Your task to perform on an android device: check google app version Image 0: 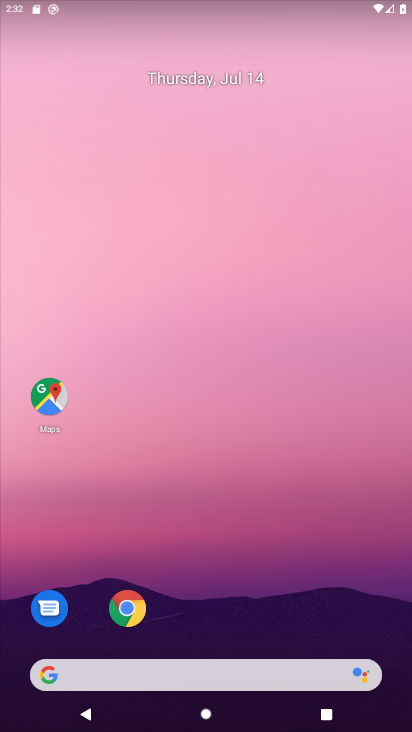
Step 0: press home button
Your task to perform on an android device: check google app version Image 1: 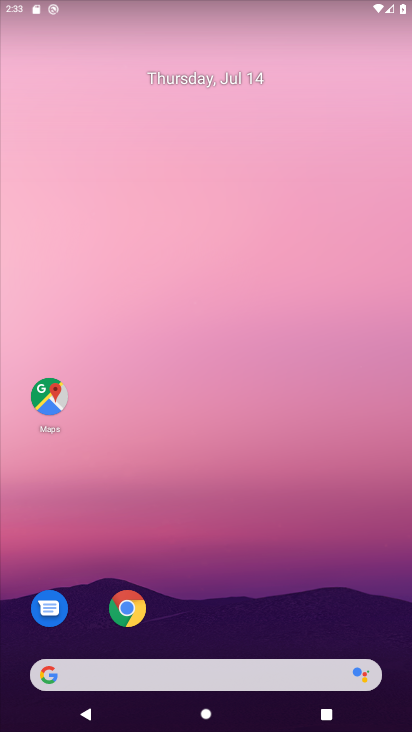
Step 1: drag from (309, 573) to (234, 184)
Your task to perform on an android device: check google app version Image 2: 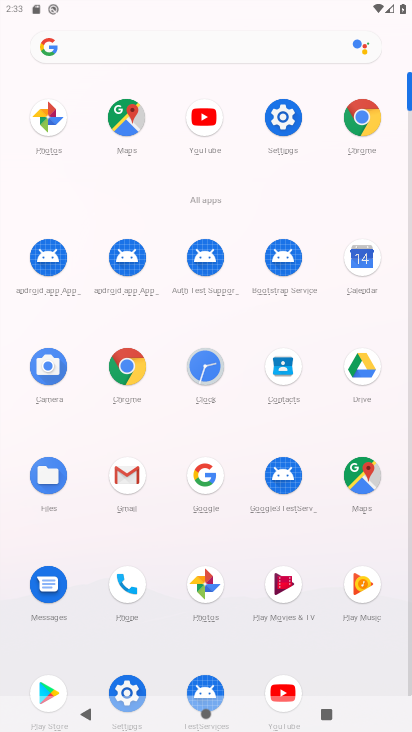
Step 2: click (198, 459)
Your task to perform on an android device: check google app version Image 3: 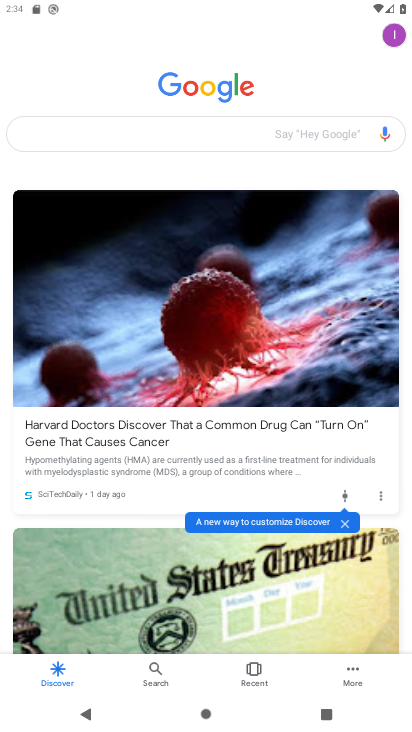
Step 3: click (396, 36)
Your task to perform on an android device: check google app version Image 4: 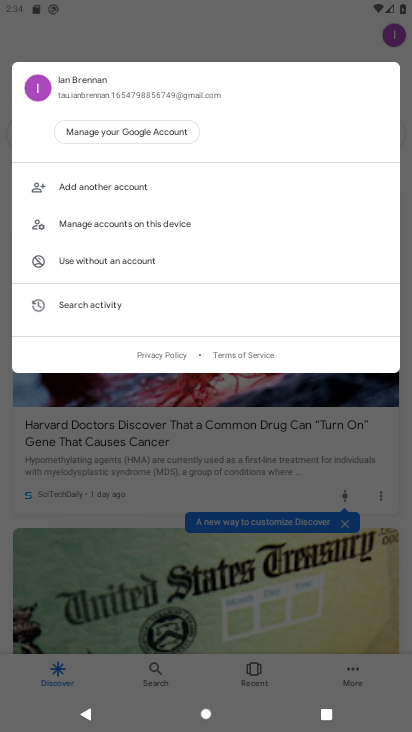
Step 4: click (284, 516)
Your task to perform on an android device: check google app version Image 5: 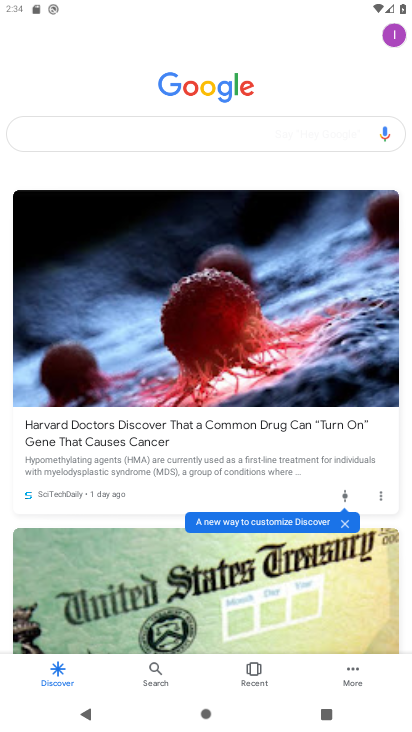
Step 5: click (358, 674)
Your task to perform on an android device: check google app version Image 6: 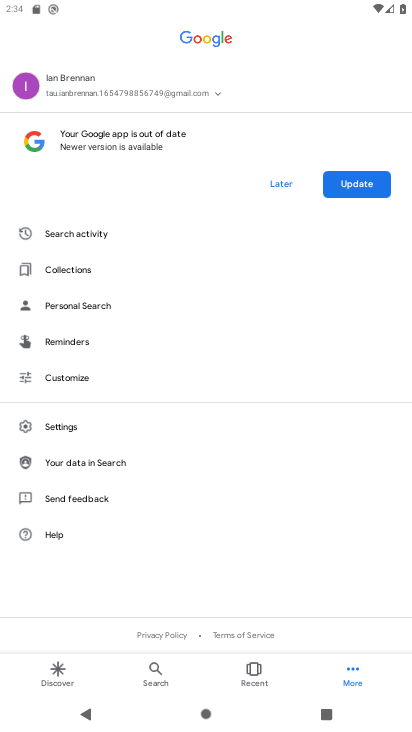
Step 6: click (88, 434)
Your task to perform on an android device: check google app version Image 7: 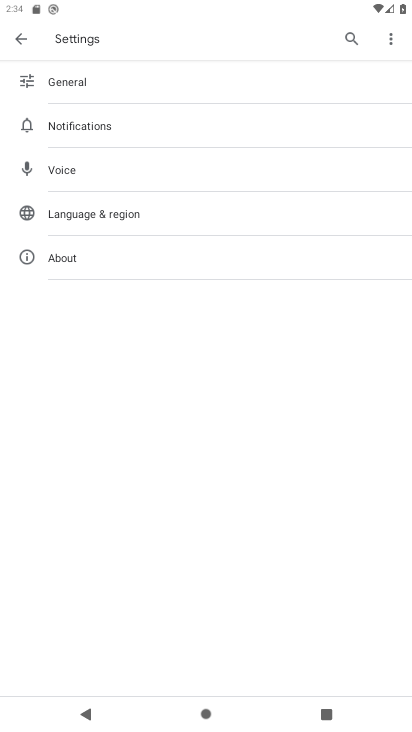
Step 7: click (98, 260)
Your task to perform on an android device: check google app version Image 8: 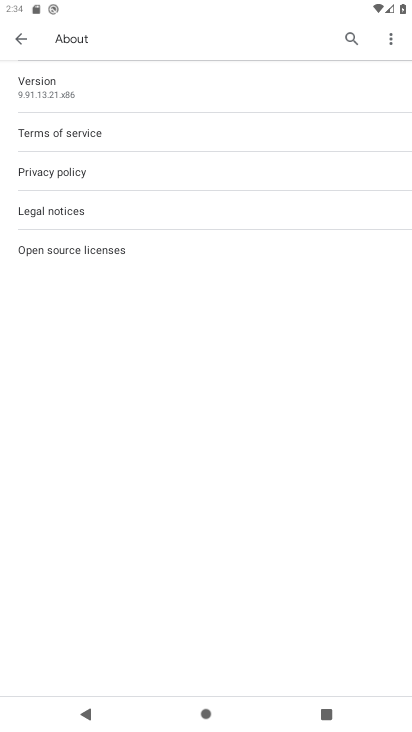
Step 8: task complete